Your task to perform on an android device: Open Chrome and go to the settings page Image 0: 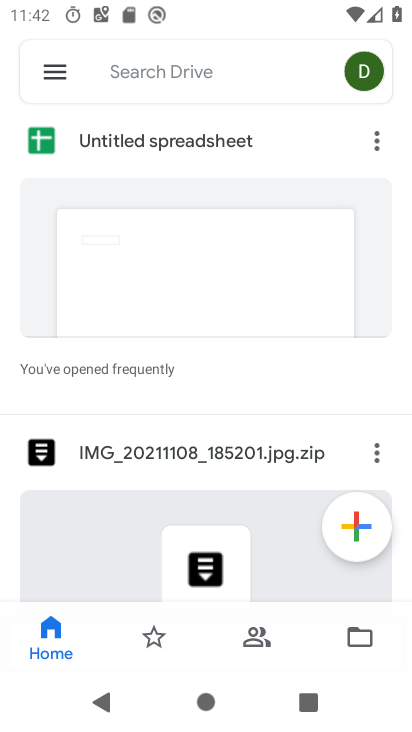
Step 0: press home button
Your task to perform on an android device: Open Chrome and go to the settings page Image 1: 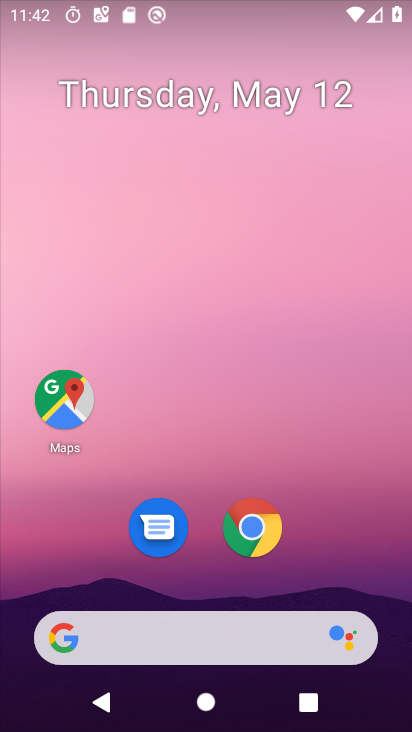
Step 1: click (244, 552)
Your task to perform on an android device: Open Chrome and go to the settings page Image 2: 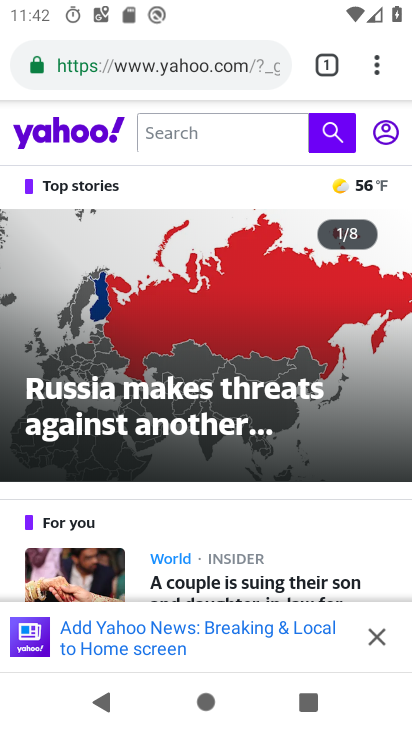
Step 2: click (372, 66)
Your task to perform on an android device: Open Chrome and go to the settings page Image 3: 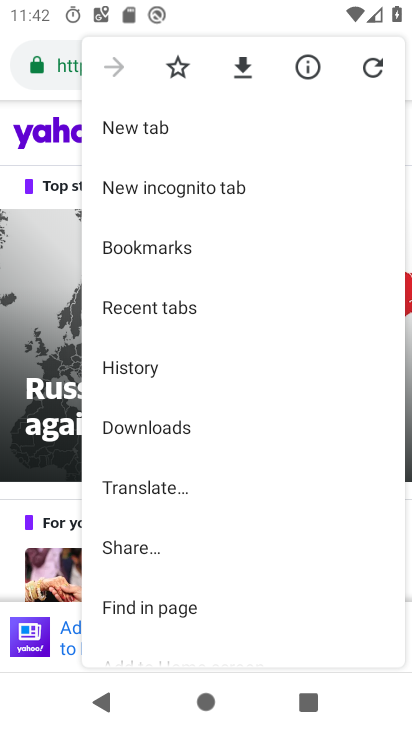
Step 3: drag from (194, 555) to (258, 241)
Your task to perform on an android device: Open Chrome and go to the settings page Image 4: 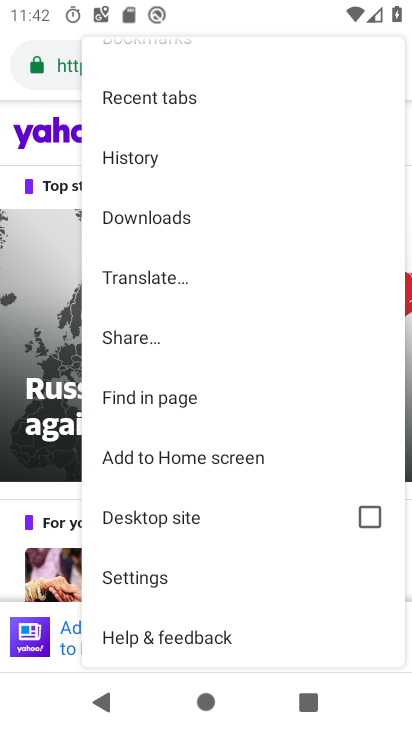
Step 4: click (162, 585)
Your task to perform on an android device: Open Chrome and go to the settings page Image 5: 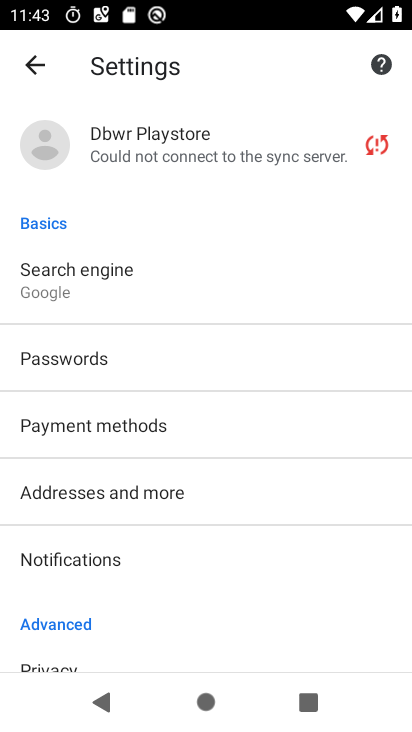
Step 5: task complete